Your task to perform on an android device: change text size in settings app Image 0: 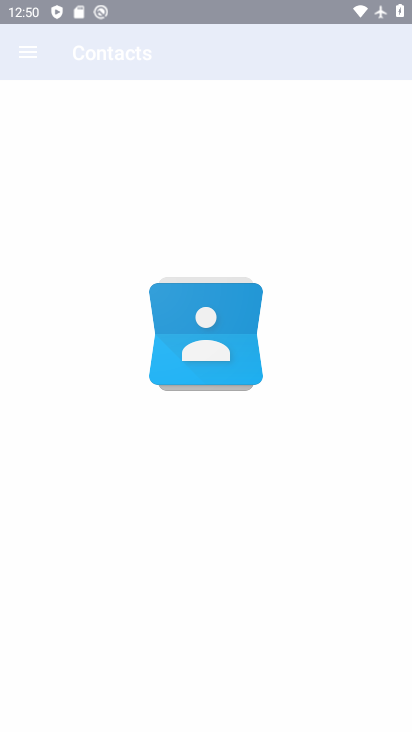
Step 0: click (55, 685)
Your task to perform on an android device: change text size in settings app Image 1: 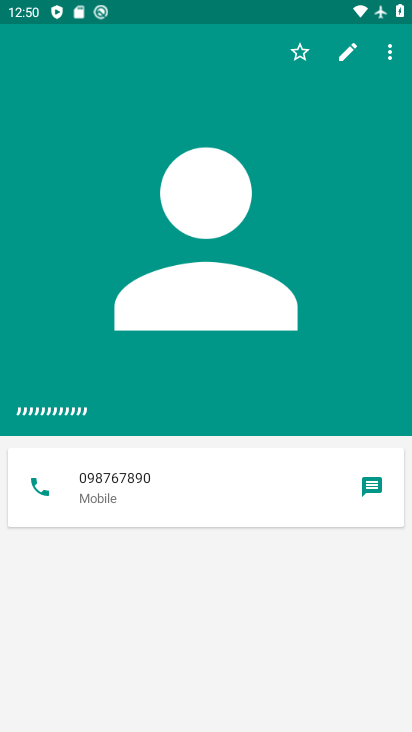
Step 1: press home button
Your task to perform on an android device: change text size in settings app Image 2: 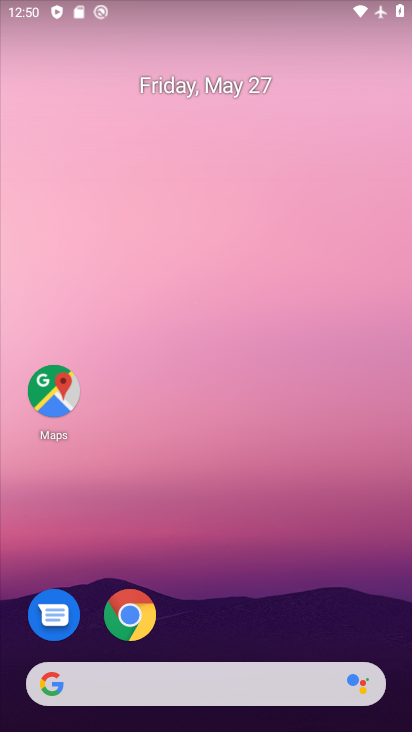
Step 2: drag from (286, 614) to (297, 27)
Your task to perform on an android device: change text size in settings app Image 3: 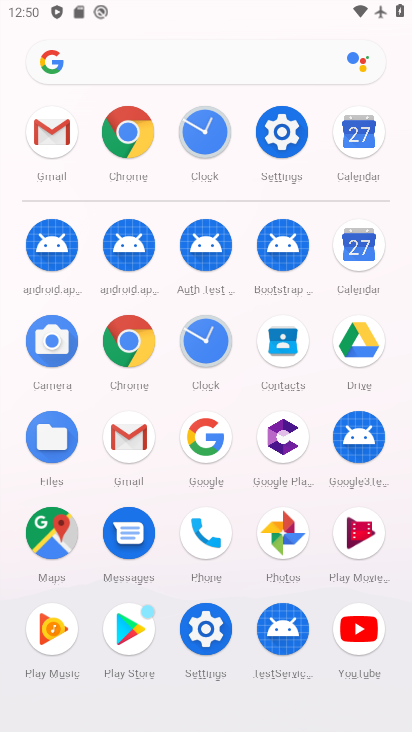
Step 3: click (289, 122)
Your task to perform on an android device: change text size in settings app Image 4: 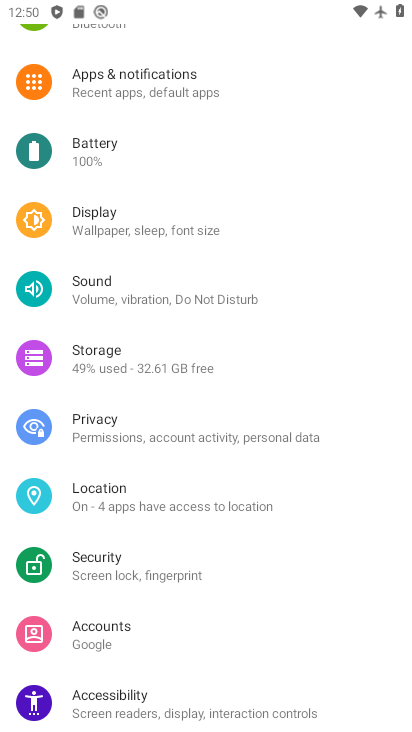
Step 4: click (167, 228)
Your task to perform on an android device: change text size in settings app Image 5: 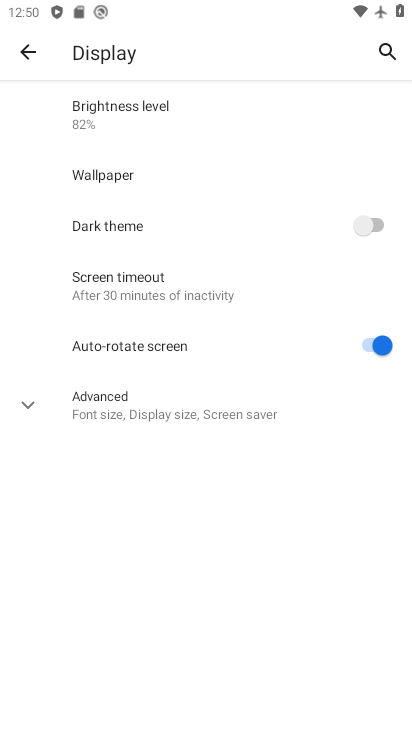
Step 5: click (129, 416)
Your task to perform on an android device: change text size in settings app Image 6: 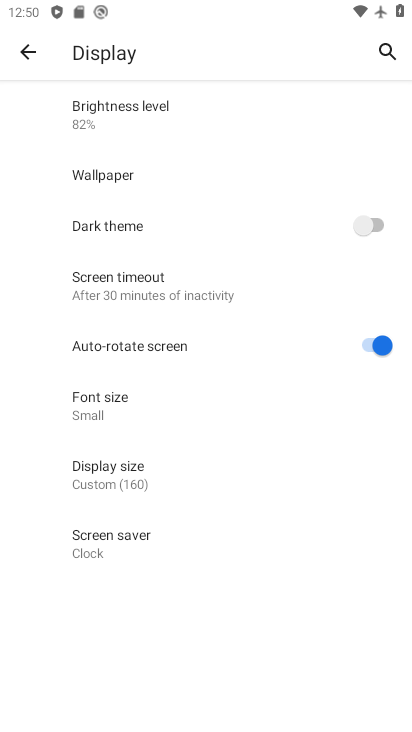
Step 6: click (96, 405)
Your task to perform on an android device: change text size in settings app Image 7: 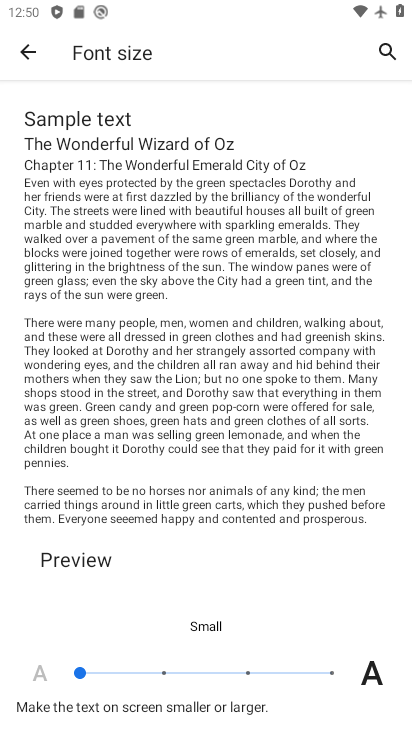
Step 7: click (194, 670)
Your task to perform on an android device: change text size in settings app Image 8: 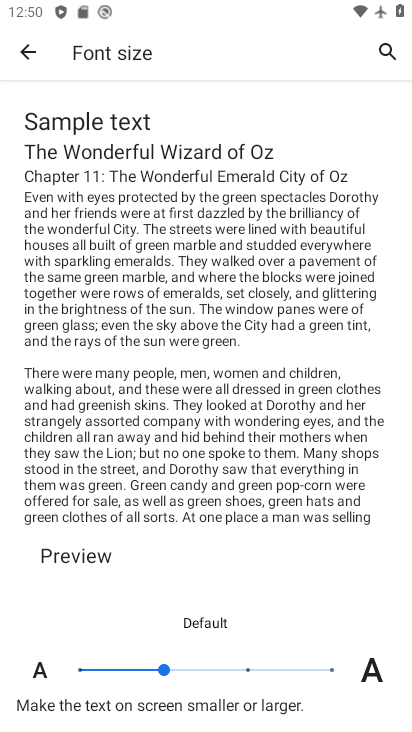
Step 8: task complete